Your task to perform on an android device: What is the recent news? Image 0: 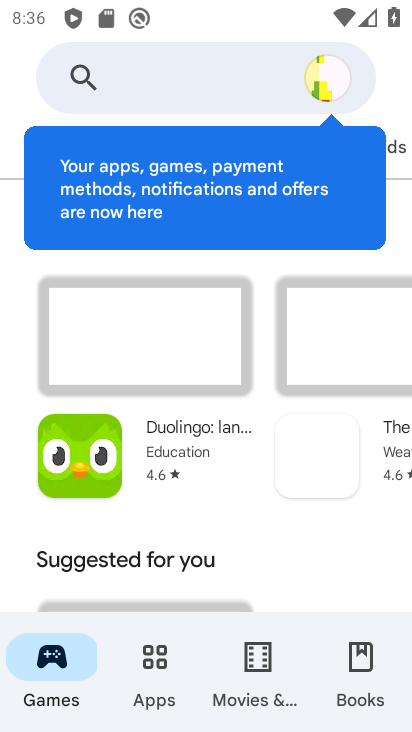
Step 0: press home button
Your task to perform on an android device: What is the recent news? Image 1: 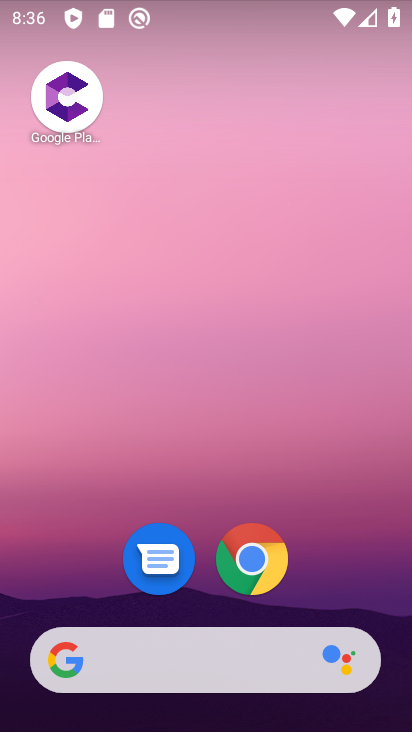
Step 1: task complete